Your task to perform on an android device: Show me popular videos on Youtube Image 0: 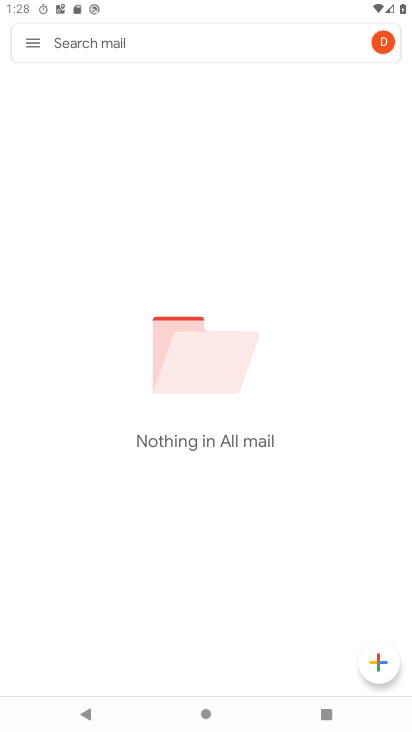
Step 0: press home button
Your task to perform on an android device: Show me popular videos on Youtube Image 1: 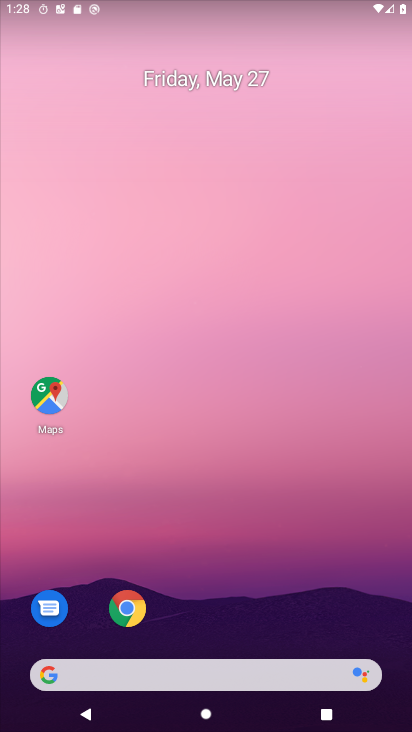
Step 1: drag from (394, 725) to (332, 154)
Your task to perform on an android device: Show me popular videos on Youtube Image 2: 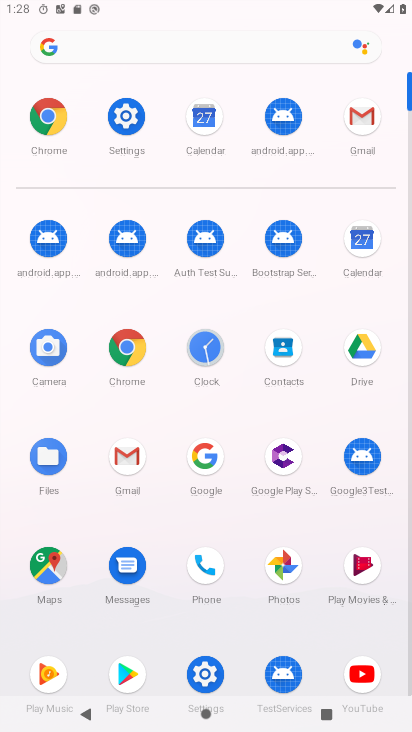
Step 2: click (356, 663)
Your task to perform on an android device: Show me popular videos on Youtube Image 3: 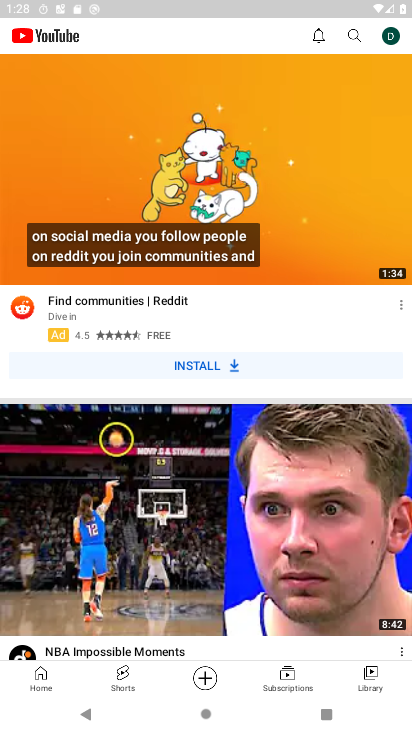
Step 3: click (366, 687)
Your task to perform on an android device: Show me popular videos on Youtube Image 4: 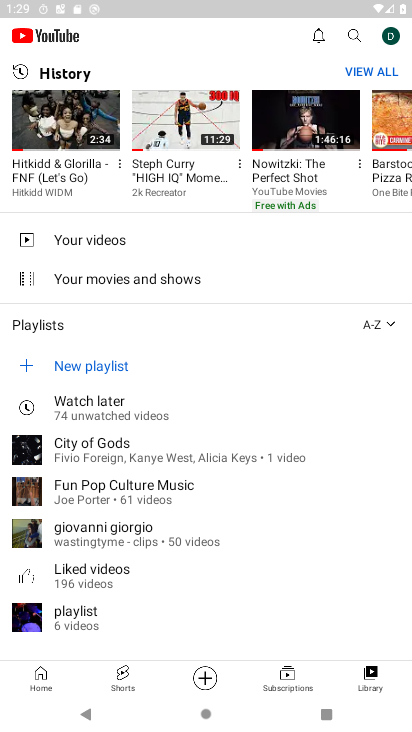
Step 4: click (81, 124)
Your task to perform on an android device: Show me popular videos on Youtube Image 5: 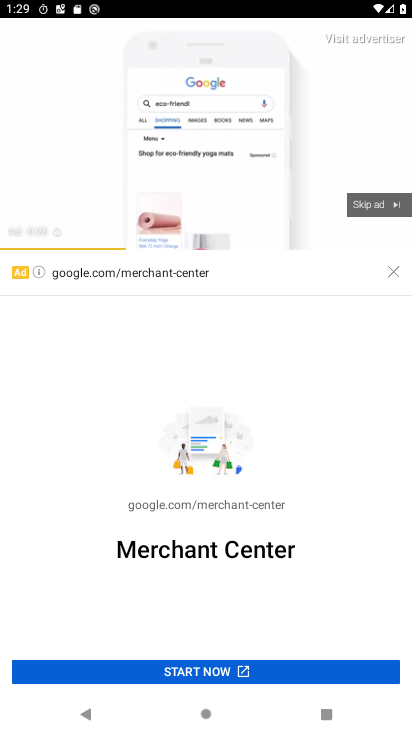
Step 5: click (378, 202)
Your task to perform on an android device: Show me popular videos on Youtube Image 6: 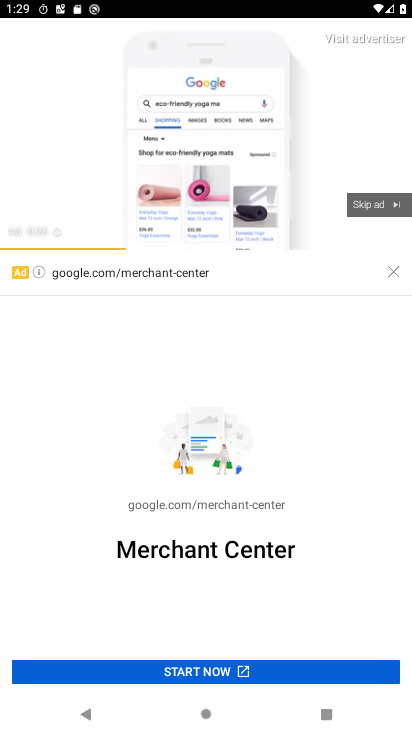
Step 6: click (374, 204)
Your task to perform on an android device: Show me popular videos on Youtube Image 7: 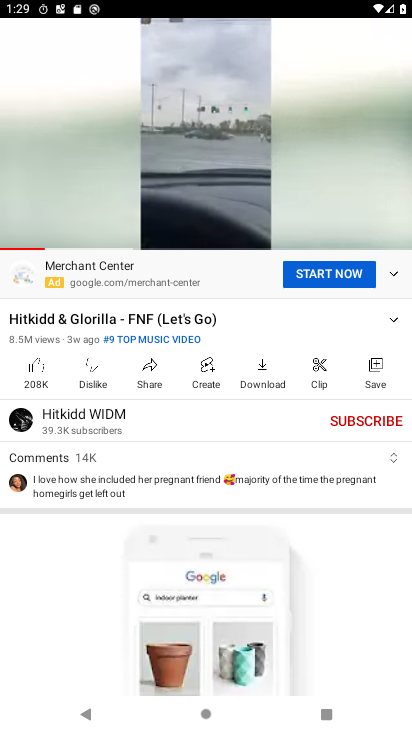
Step 7: click (183, 158)
Your task to perform on an android device: Show me popular videos on Youtube Image 8: 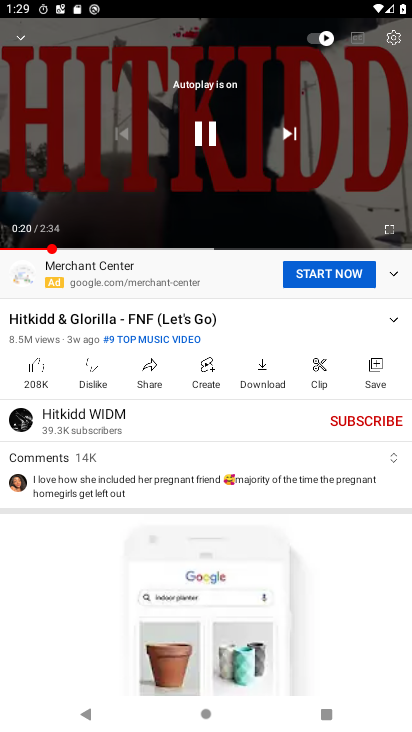
Step 8: click (208, 132)
Your task to perform on an android device: Show me popular videos on Youtube Image 9: 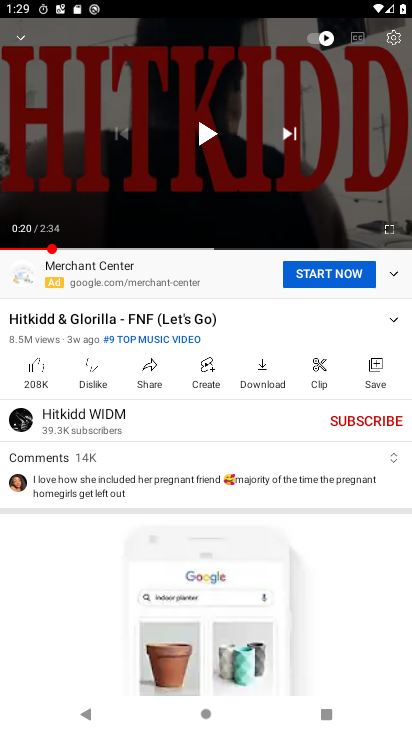
Step 9: task complete